Your task to perform on an android device: Open Google Maps and go to "Timeline" Image 0: 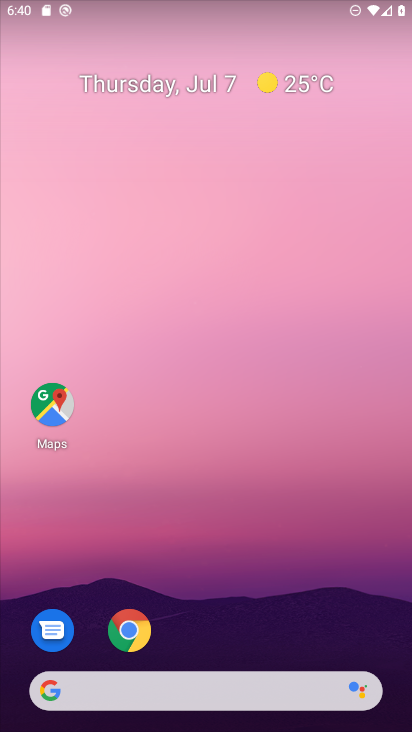
Step 0: click (37, 399)
Your task to perform on an android device: Open Google Maps and go to "Timeline" Image 1: 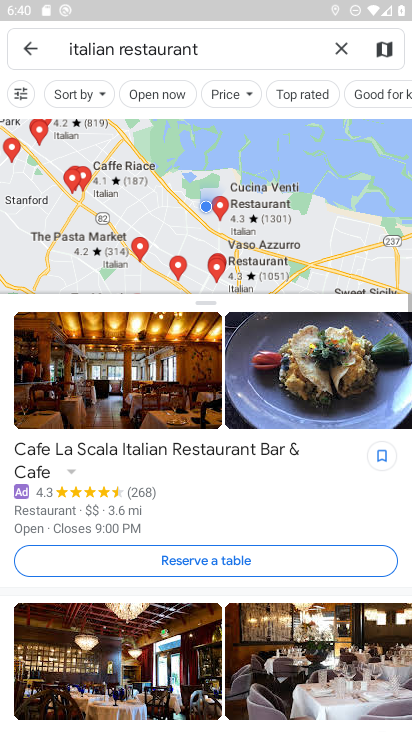
Step 1: click (28, 45)
Your task to perform on an android device: Open Google Maps and go to "Timeline" Image 2: 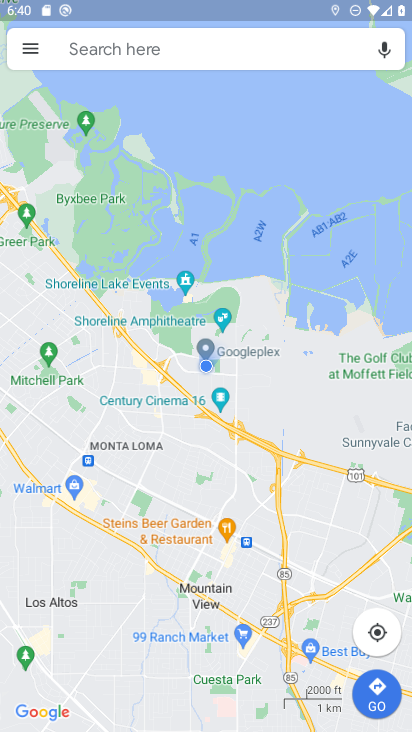
Step 2: click (28, 46)
Your task to perform on an android device: Open Google Maps and go to "Timeline" Image 3: 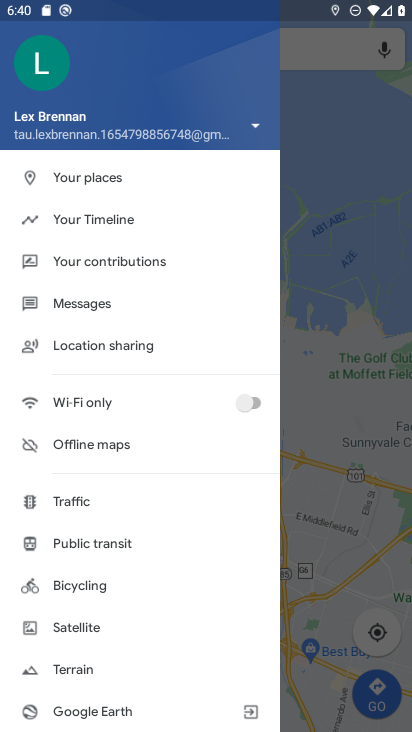
Step 3: click (118, 215)
Your task to perform on an android device: Open Google Maps and go to "Timeline" Image 4: 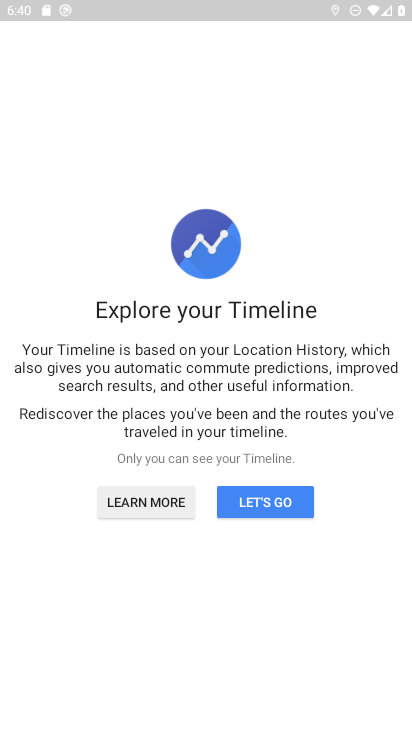
Step 4: click (264, 503)
Your task to perform on an android device: Open Google Maps and go to "Timeline" Image 5: 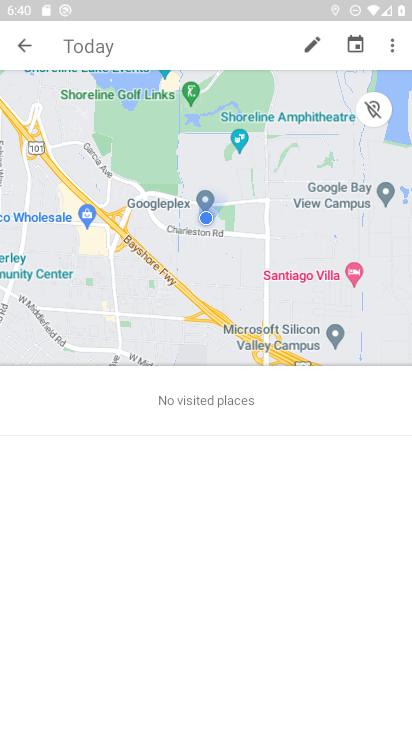
Step 5: task complete